Your task to perform on an android device: change the upload size in google photos Image 0: 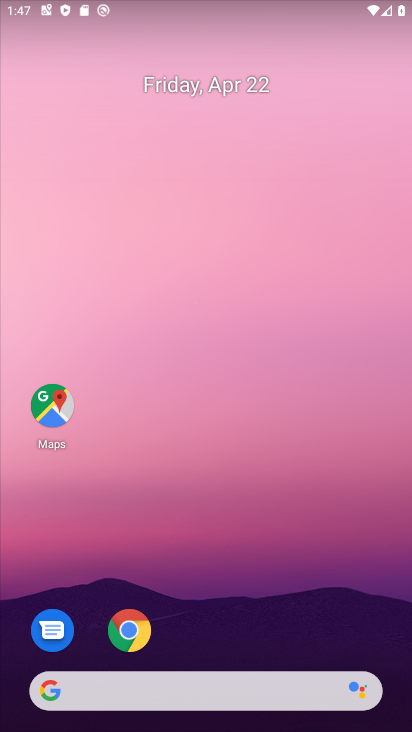
Step 0: drag from (356, 570) to (334, 169)
Your task to perform on an android device: change the upload size in google photos Image 1: 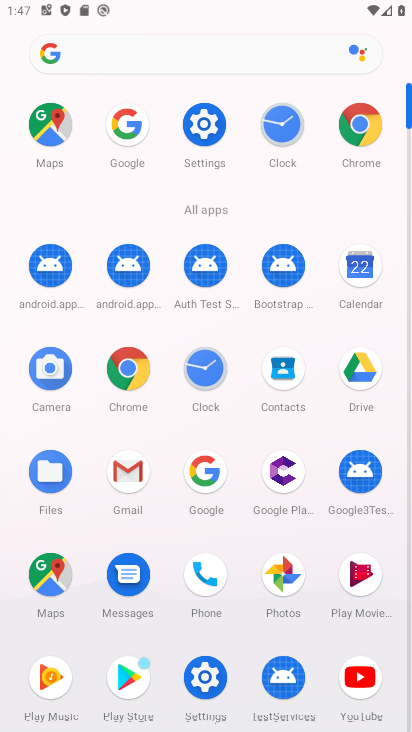
Step 1: click (286, 588)
Your task to perform on an android device: change the upload size in google photos Image 2: 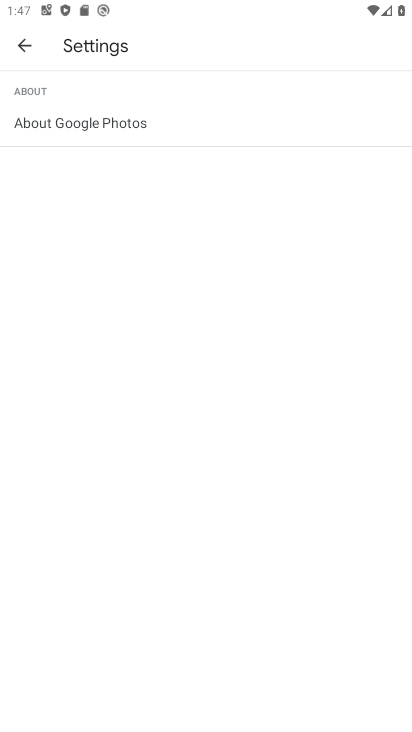
Step 2: click (24, 43)
Your task to perform on an android device: change the upload size in google photos Image 3: 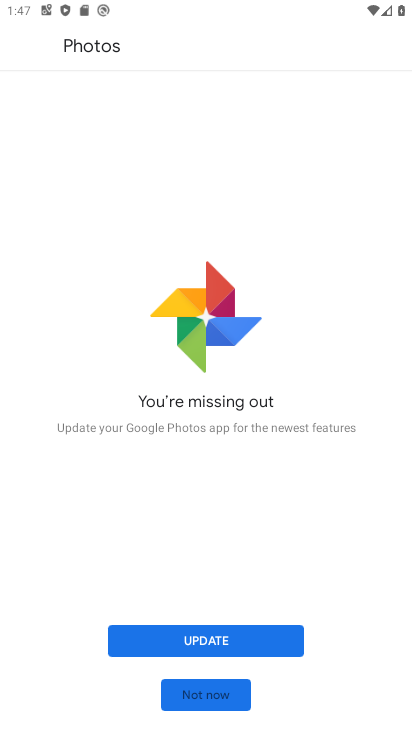
Step 3: click (215, 642)
Your task to perform on an android device: change the upload size in google photos Image 4: 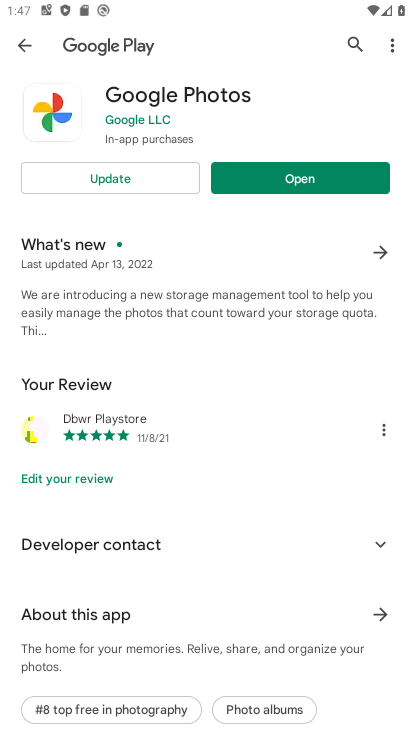
Step 4: click (104, 183)
Your task to perform on an android device: change the upload size in google photos Image 5: 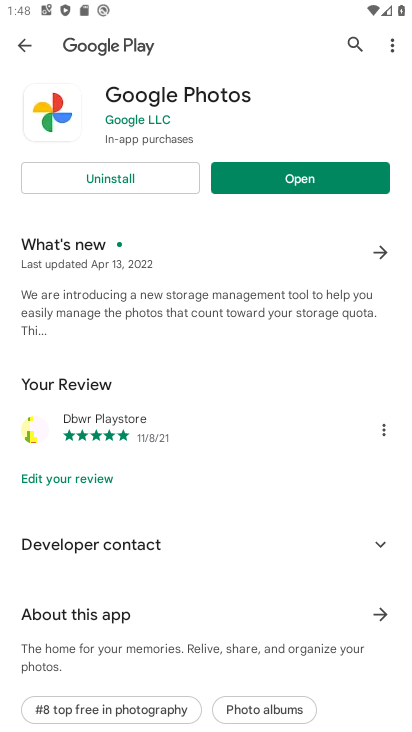
Step 5: click (340, 174)
Your task to perform on an android device: change the upload size in google photos Image 6: 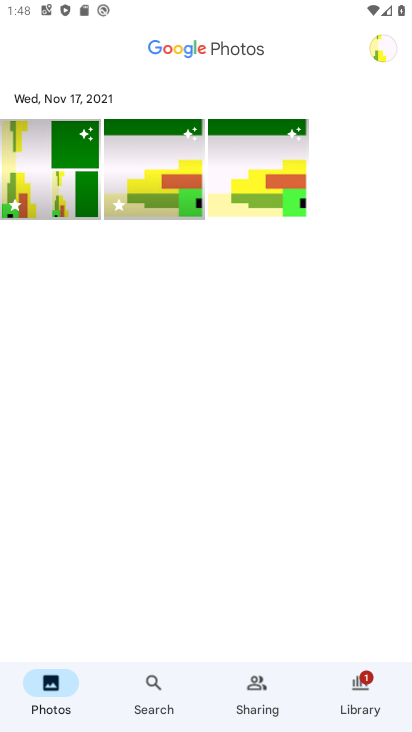
Step 6: click (386, 51)
Your task to perform on an android device: change the upload size in google photos Image 7: 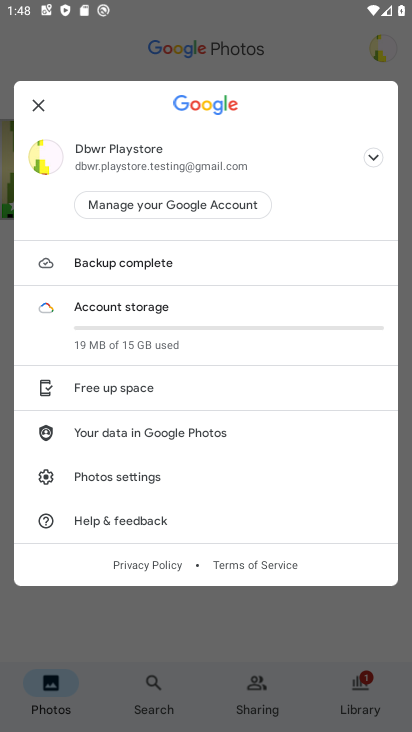
Step 7: click (140, 481)
Your task to perform on an android device: change the upload size in google photos Image 8: 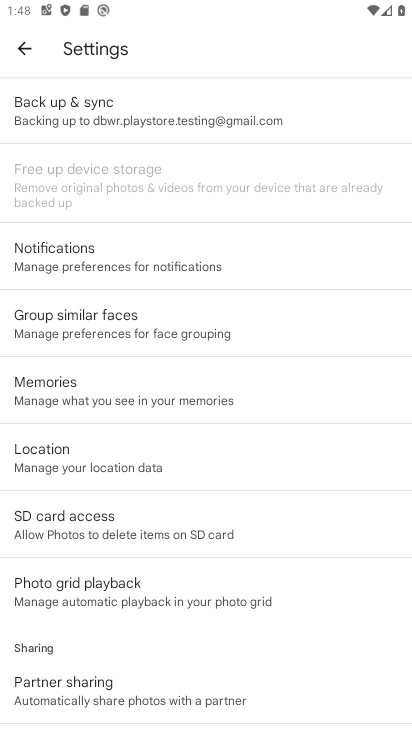
Step 8: click (112, 110)
Your task to perform on an android device: change the upload size in google photos Image 9: 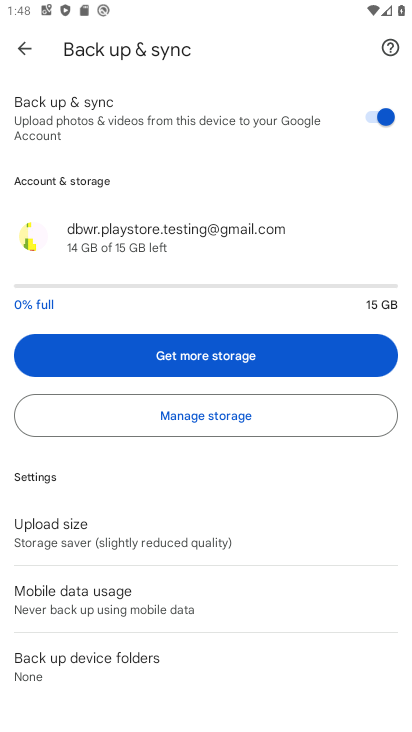
Step 9: drag from (292, 607) to (290, 193)
Your task to perform on an android device: change the upload size in google photos Image 10: 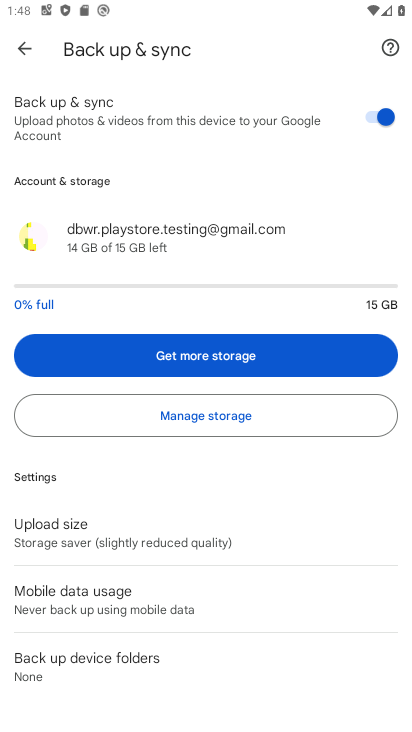
Step 10: click (117, 535)
Your task to perform on an android device: change the upload size in google photos Image 11: 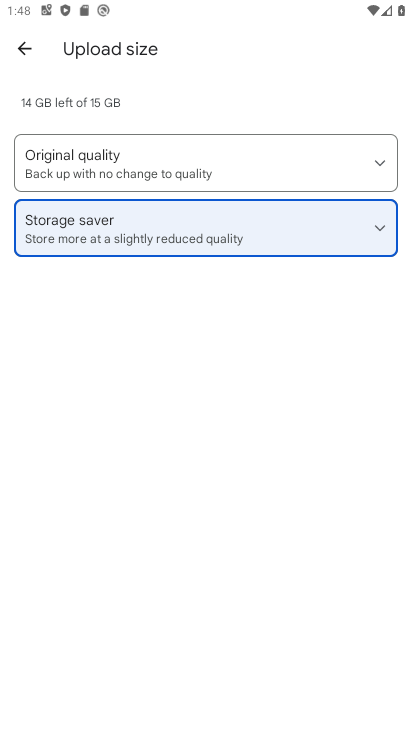
Step 11: click (155, 157)
Your task to perform on an android device: change the upload size in google photos Image 12: 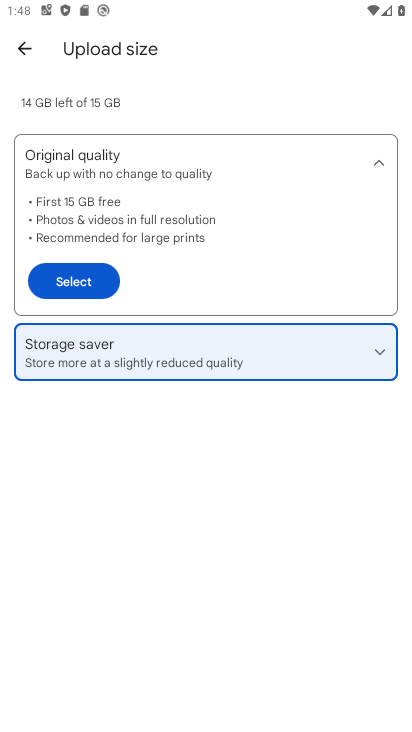
Step 12: click (71, 285)
Your task to perform on an android device: change the upload size in google photos Image 13: 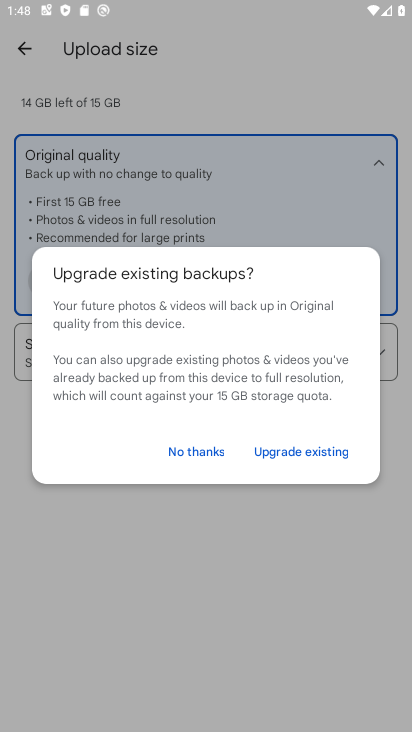
Step 13: click (278, 448)
Your task to perform on an android device: change the upload size in google photos Image 14: 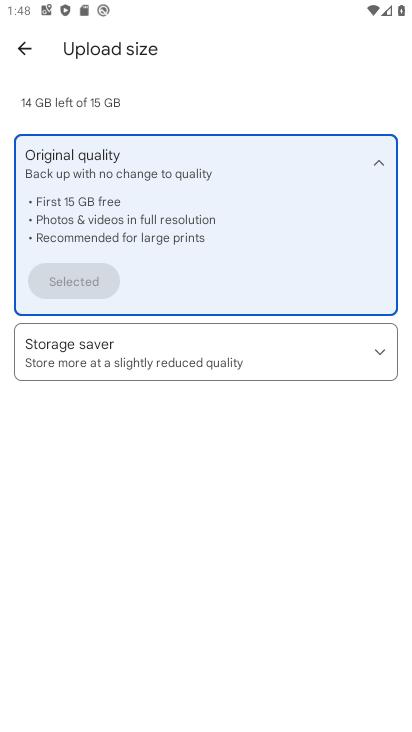
Step 14: task complete